Your task to perform on an android device: toggle notification dots Image 0: 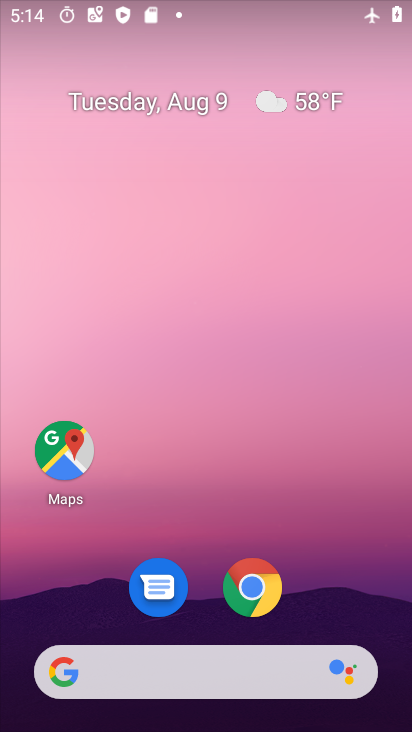
Step 0: drag from (195, 676) to (212, 47)
Your task to perform on an android device: toggle notification dots Image 1: 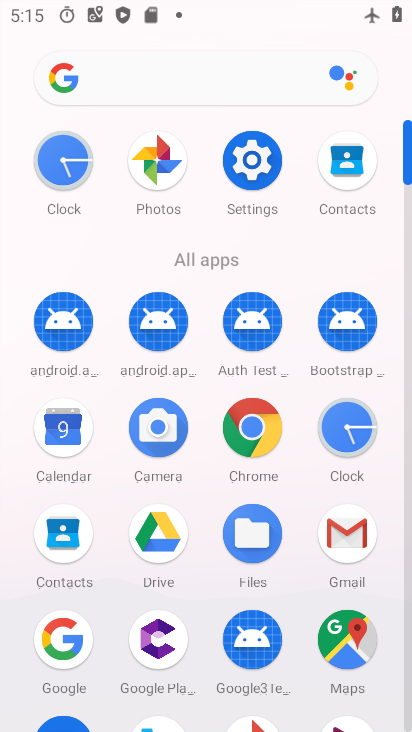
Step 1: click (250, 153)
Your task to perform on an android device: toggle notification dots Image 2: 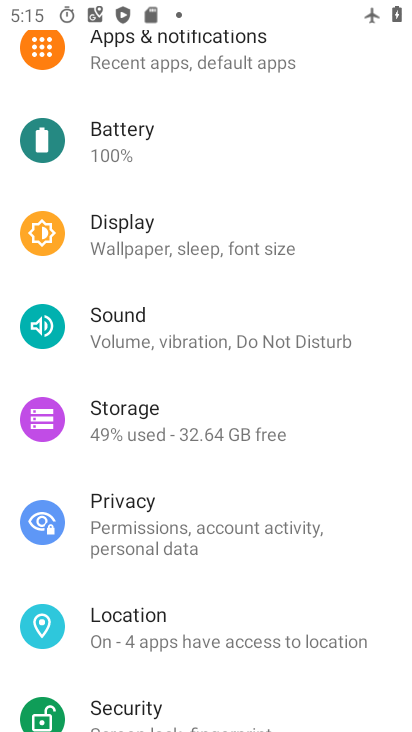
Step 2: click (140, 63)
Your task to perform on an android device: toggle notification dots Image 3: 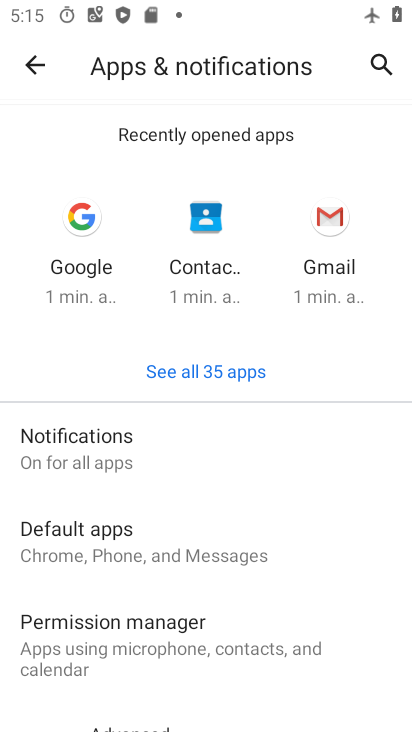
Step 3: click (118, 445)
Your task to perform on an android device: toggle notification dots Image 4: 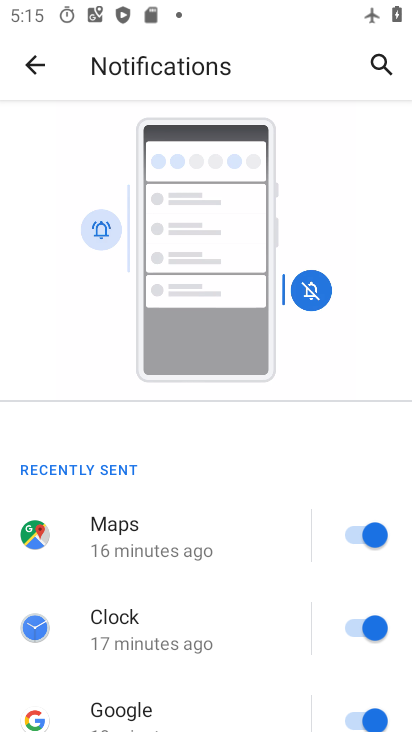
Step 4: drag from (111, 675) to (133, 397)
Your task to perform on an android device: toggle notification dots Image 5: 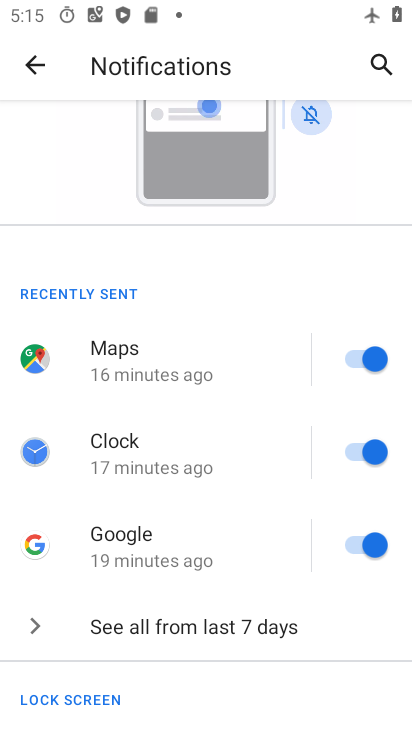
Step 5: drag from (138, 646) to (113, 34)
Your task to perform on an android device: toggle notification dots Image 6: 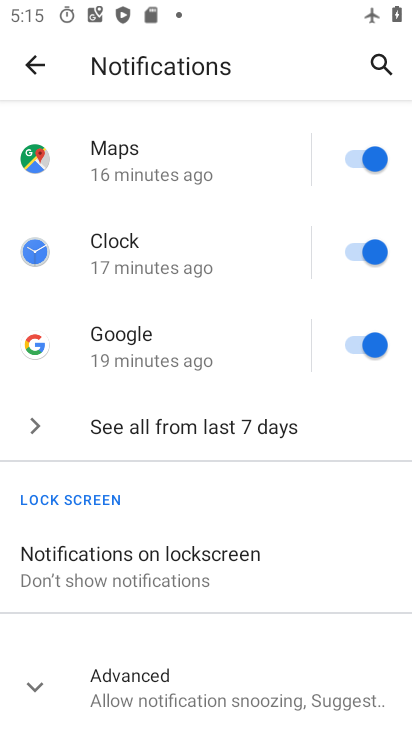
Step 6: click (126, 672)
Your task to perform on an android device: toggle notification dots Image 7: 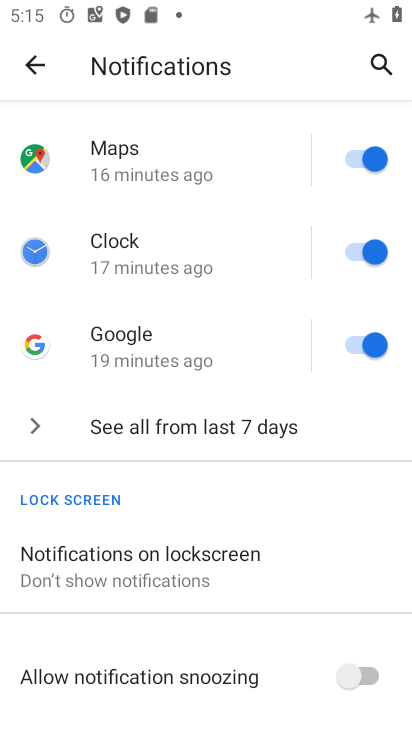
Step 7: drag from (183, 659) to (154, 182)
Your task to perform on an android device: toggle notification dots Image 8: 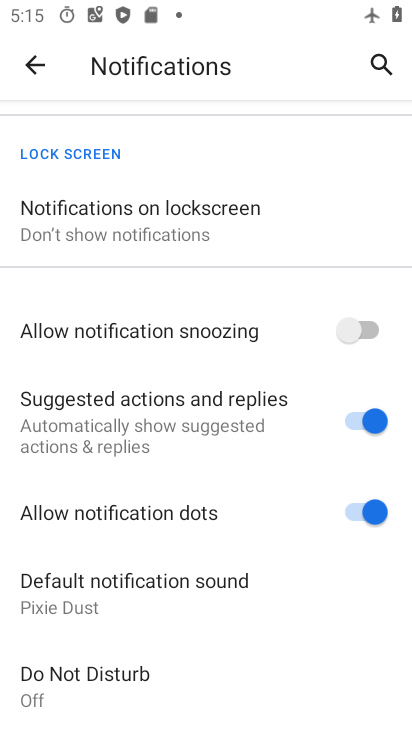
Step 8: click (373, 511)
Your task to perform on an android device: toggle notification dots Image 9: 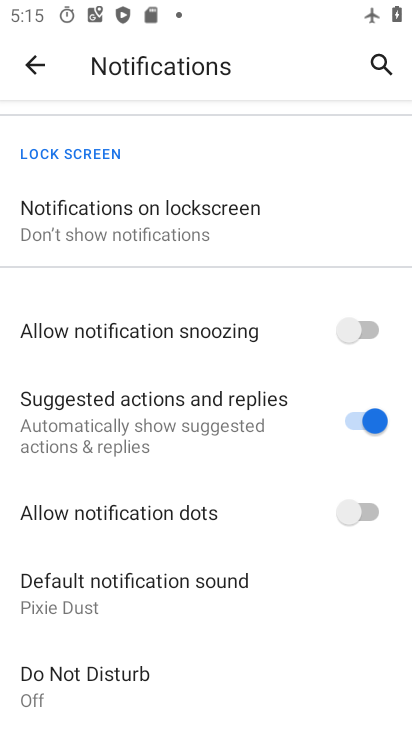
Step 9: task complete